Your task to perform on an android device: add a contact Image 0: 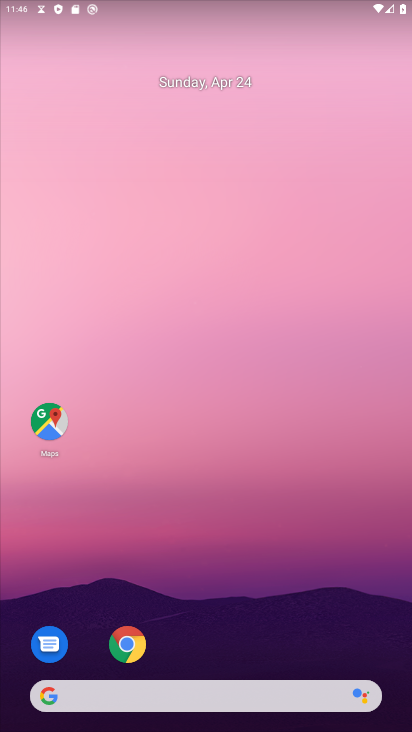
Step 0: drag from (370, 521) to (379, 64)
Your task to perform on an android device: add a contact Image 1: 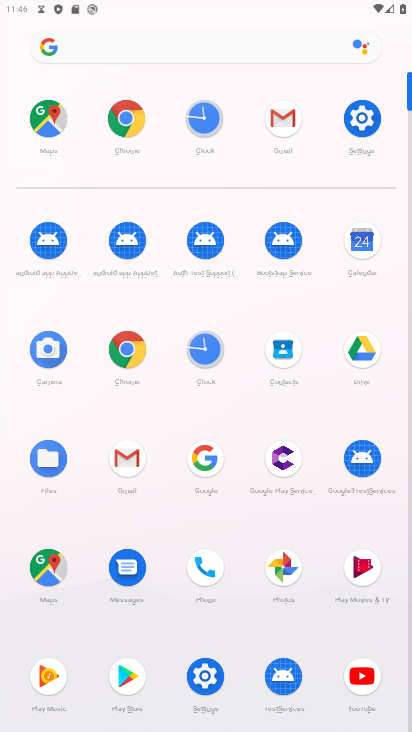
Step 1: click (284, 349)
Your task to perform on an android device: add a contact Image 2: 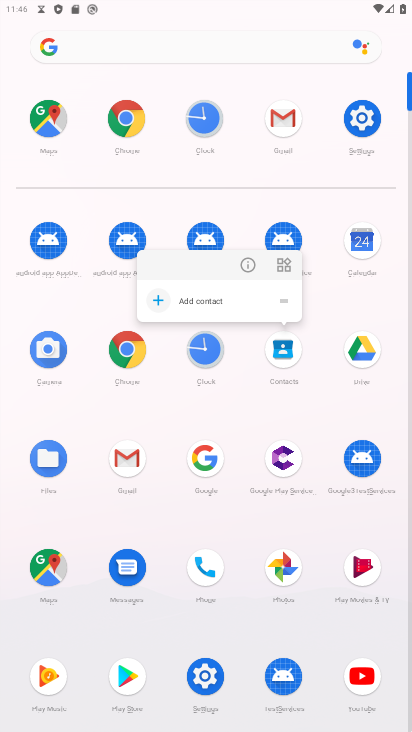
Step 2: click (284, 349)
Your task to perform on an android device: add a contact Image 3: 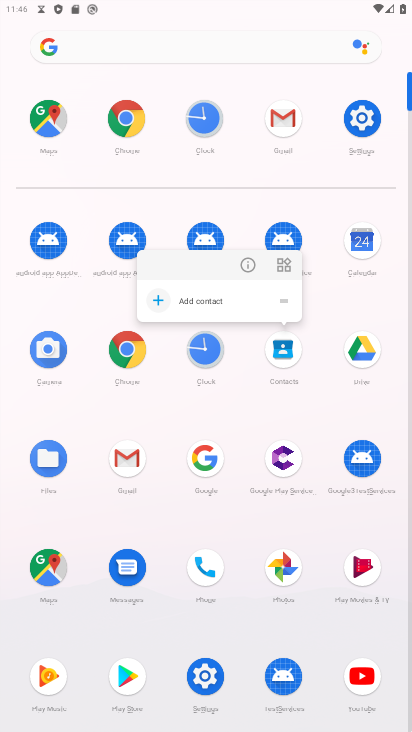
Step 3: click (284, 349)
Your task to perform on an android device: add a contact Image 4: 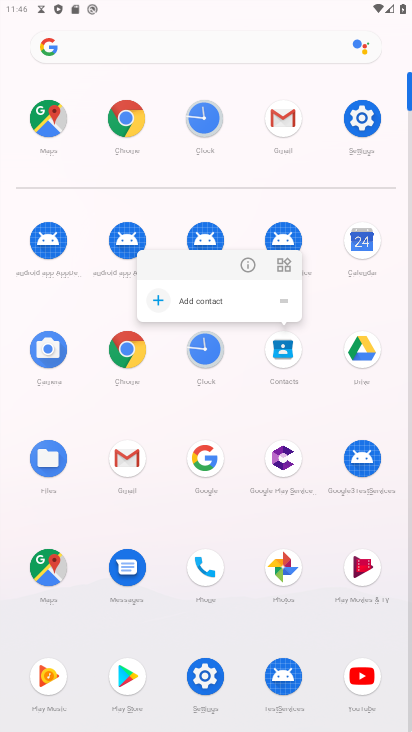
Step 4: click (282, 353)
Your task to perform on an android device: add a contact Image 5: 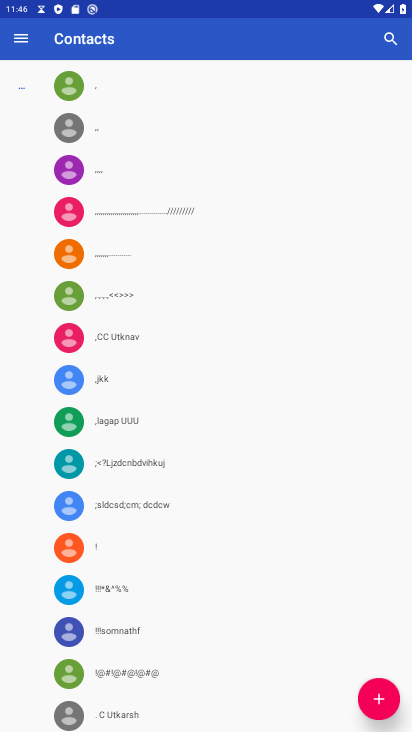
Step 5: click (375, 699)
Your task to perform on an android device: add a contact Image 6: 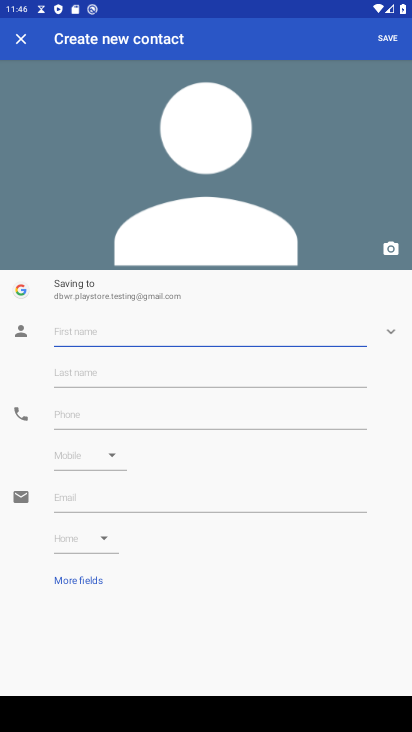
Step 6: click (88, 333)
Your task to perform on an android device: add a contact Image 7: 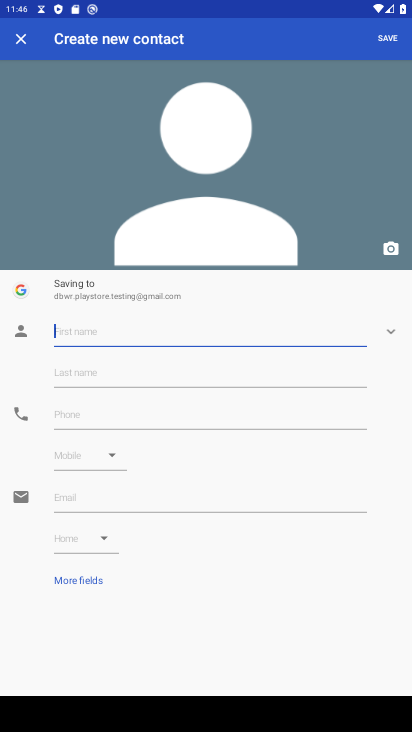
Step 7: type "diya"
Your task to perform on an android device: add a contact Image 8: 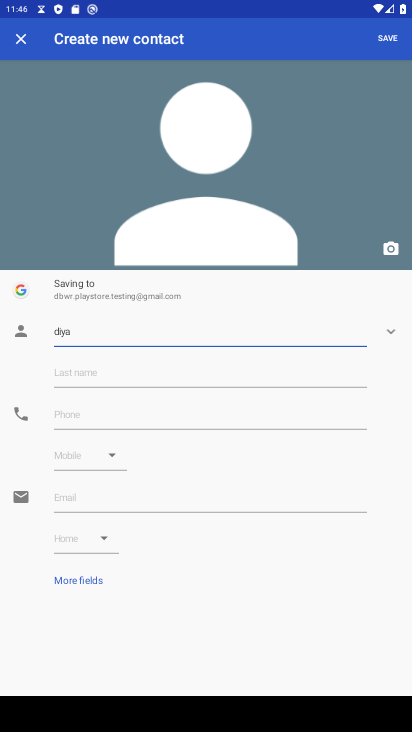
Step 8: click (162, 408)
Your task to perform on an android device: add a contact Image 9: 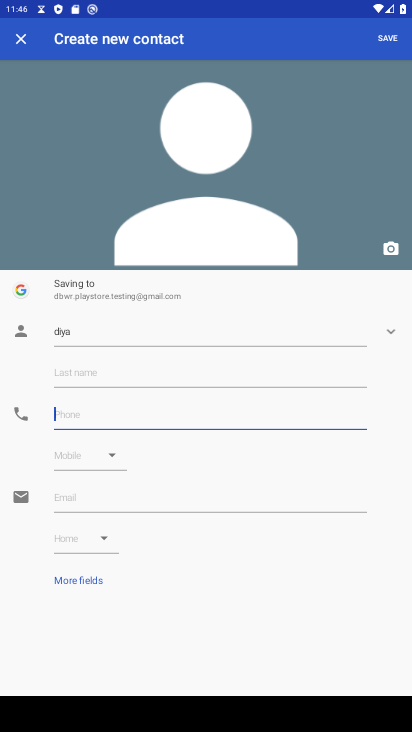
Step 9: click (110, 414)
Your task to perform on an android device: add a contact Image 10: 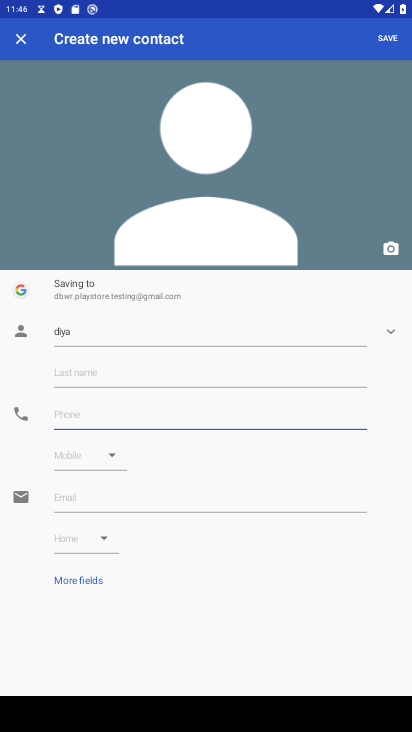
Step 10: type "986543322"
Your task to perform on an android device: add a contact Image 11: 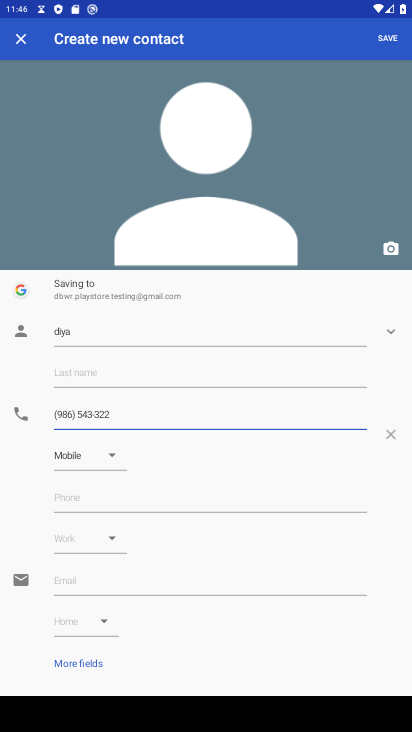
Step 11: click (410, 42)
Your task to perform on an android device: add a contact Image 12: 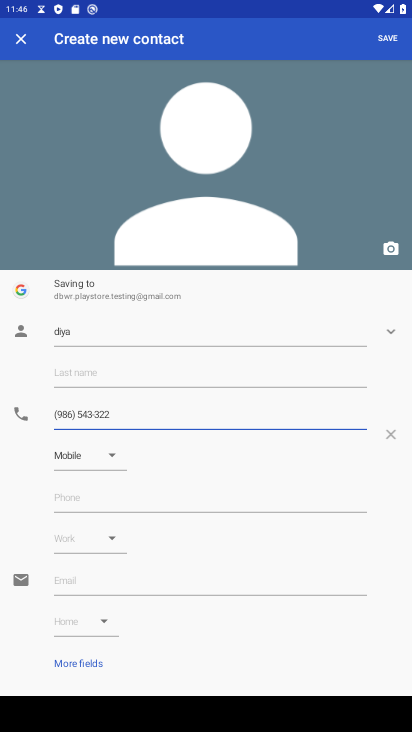
Step 12: click (391, 42)
Your task to perform on an android device: add a contact Image 13: 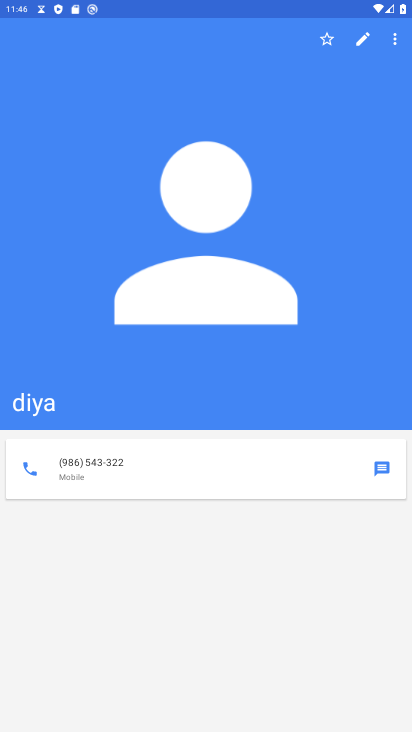
Step 13: task complete